Your task to perform on an android device: open a bookmark in the chrome app Image 0: 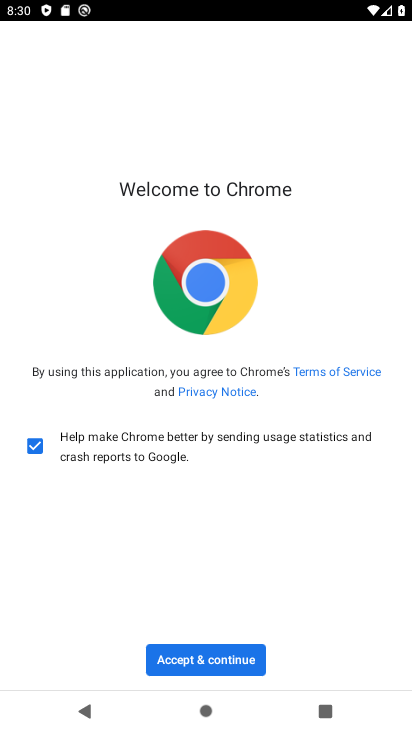
Step 0: press home button
Your task to perform on an android device: open a bookmark in the chrome app Image 1: 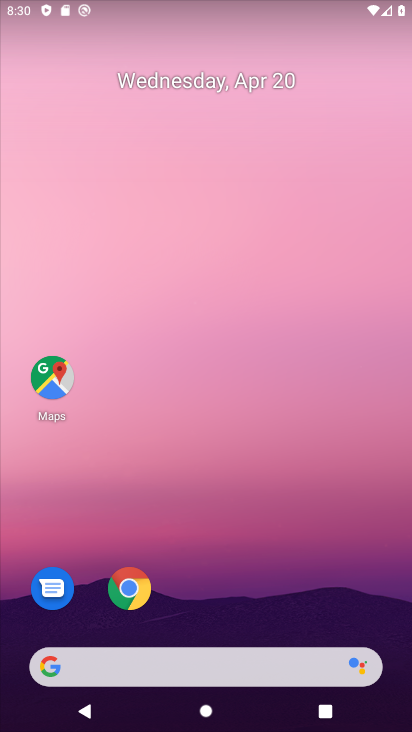
Step 1: click (128, 584)
Your task to perform on an android device: open a bookmark in the chrome app Image 2: 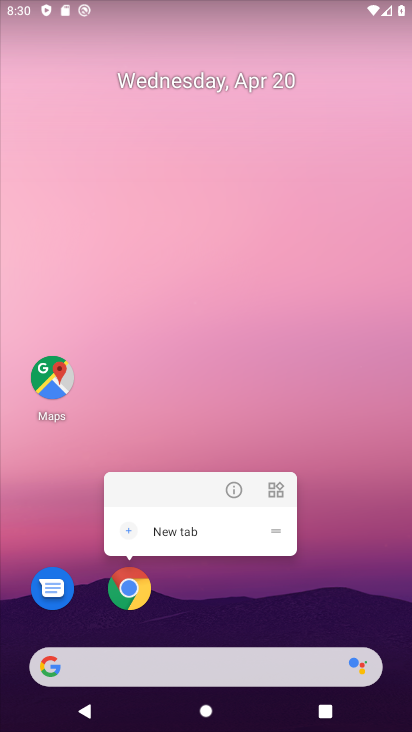
Step 2: click (129, 589)
Your task to perform on an android device: open a bookmark in the chrome app Image 3: 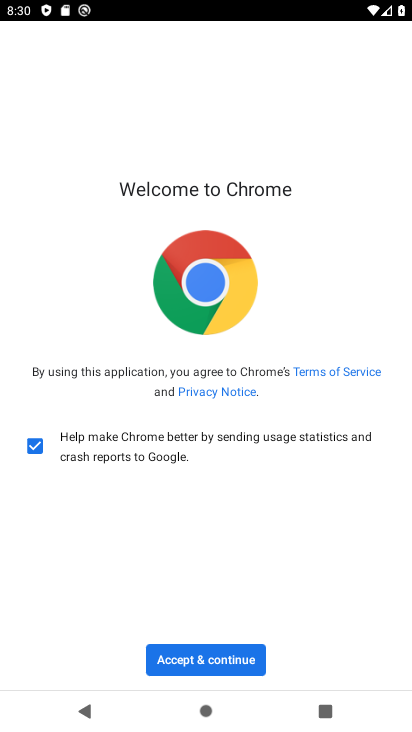
Step 3: click (199, 650)
Your task to perform on an android device: open a bookmark in the chrome app Image 4: 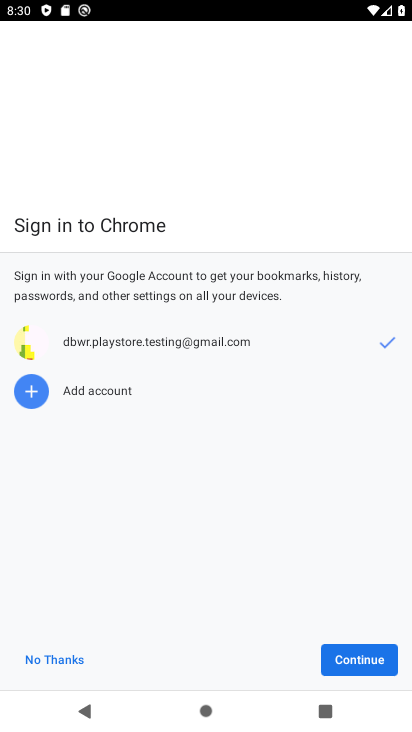
Step 4: click (363, 656)
Your task to perform on an android device: open a bookmark in the chrome app Image 5: 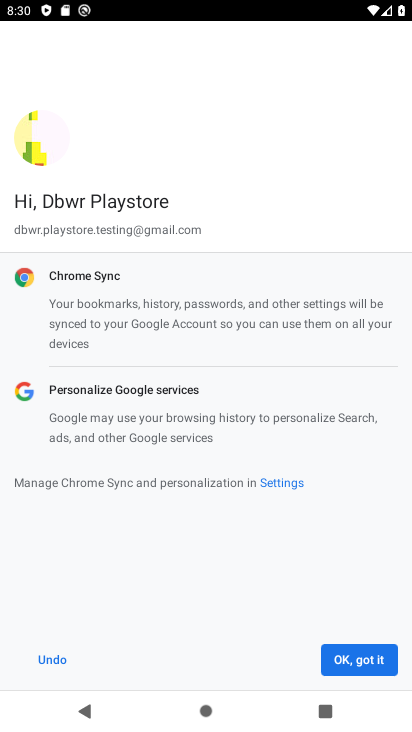
Step 5: click (363, 656)
Your task to perform on an android device: open a bookmark in the chrome app Image 6: 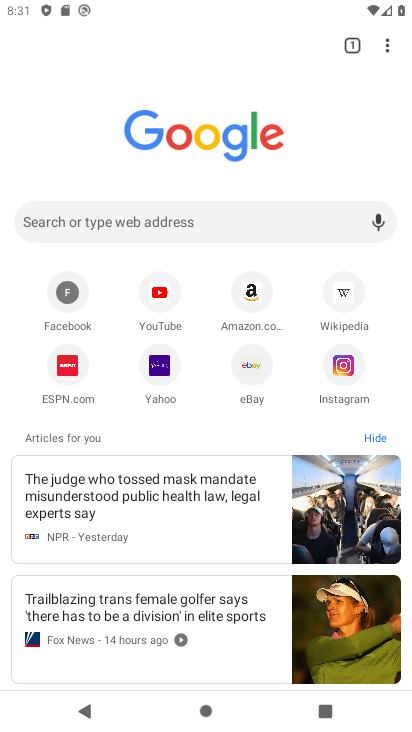
Step 6: click (388, 44)
Your task to perform on an android device: open a bookmark in the chrome app Image 7: 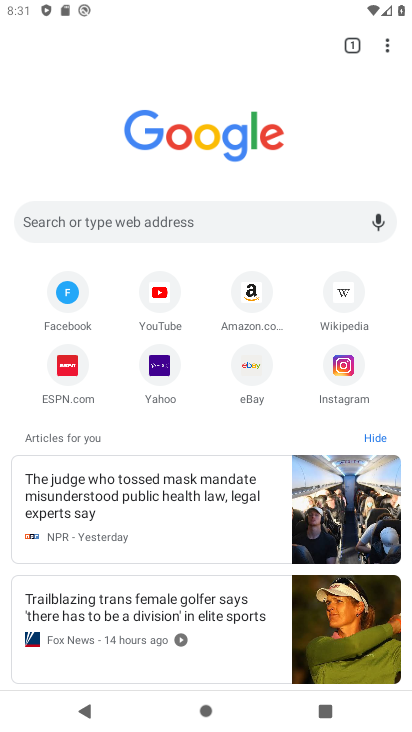
Step 7: click (382, 47)
Your task to perform on an android device: open a bookmark in the chrome app Image 8: 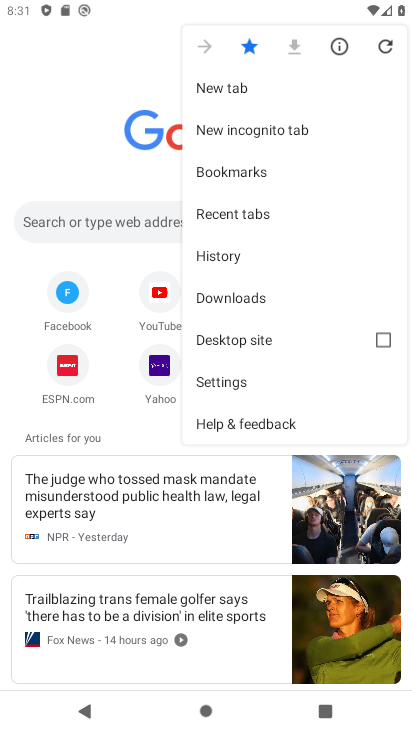
Step 8: click (260, 171)
Your task to perform on an android device: open a bookmark in the chrome app Image 9: 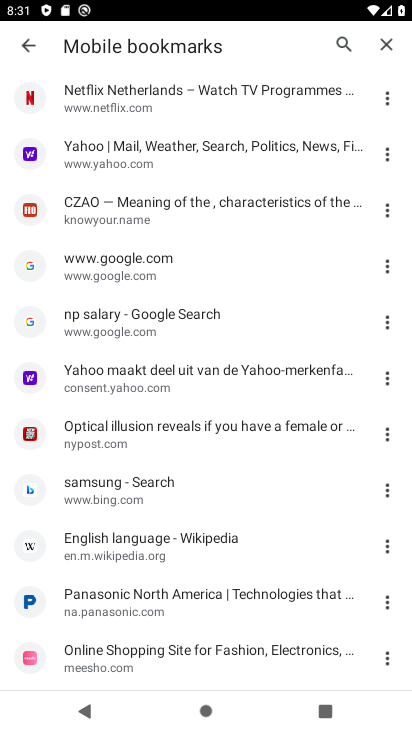
Step 9: click (175, 99)
Your task to perform on an android device: open a bookmark in the chrome app Image 10: 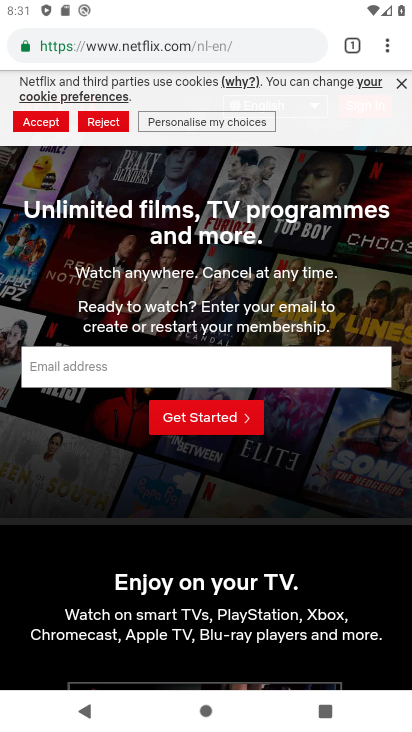
Step 10: task complete